Your task to perform on an android device: Do I have any events this weekend? Image 0: 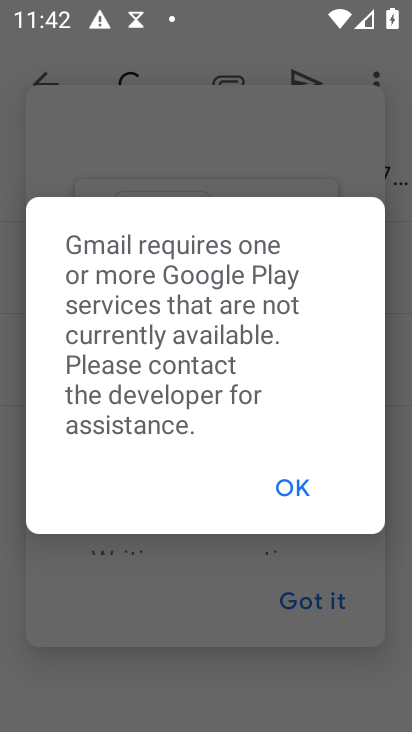
Step 0: press home button
Your task to perform on an android device: Do I have any events this weekend? Image 1: 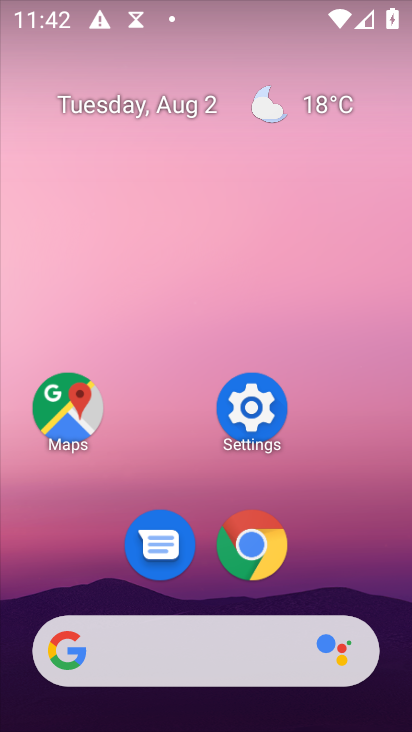
Step 1: drag from (195, 647) to (321, 167)
Your task to perform on an android device: Do I have any events this weekend? Image 2: 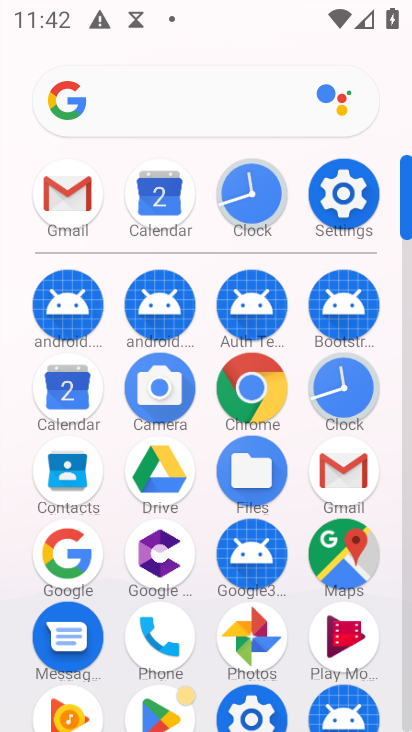
Step 2: click (66, 401)
Your task to perform on an android device: Do I have any events this weekend? Image 3: 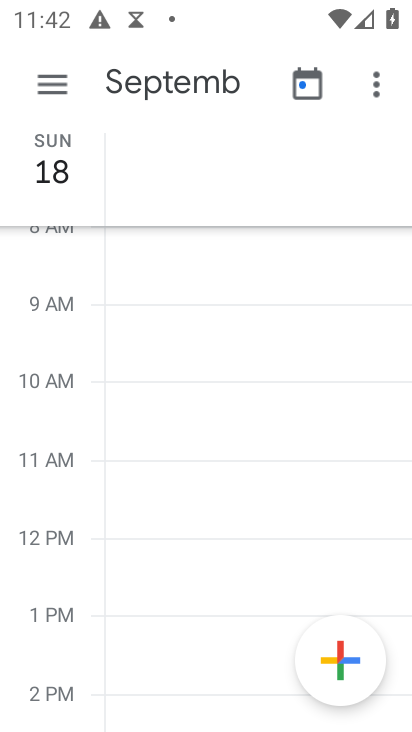
Step 3: click (160, 81)
Your task to perform on an android device: Do I have any events this weekend? Image 4: 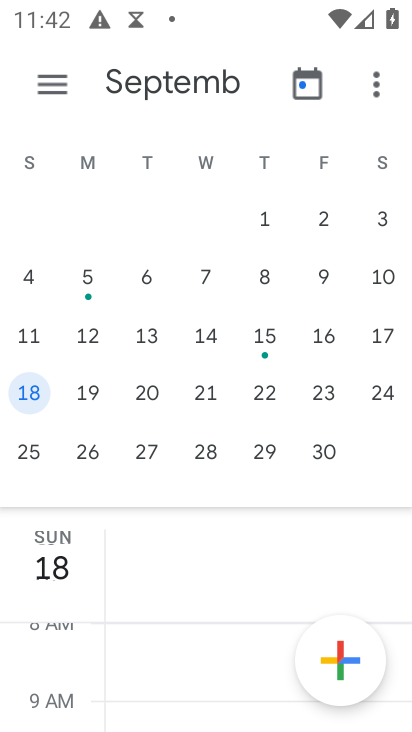
Step 4: drag from (36, 321) to (401, 343)
Your task to perform on an android device: Do I have any events this weekend? Image 5: 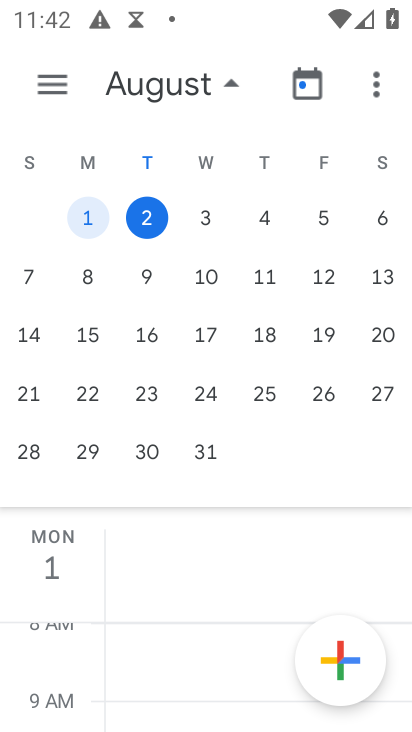
Step 5: click (382, 216)
Your task to perform on an android device: Do I have any events this weekend? Image 6: 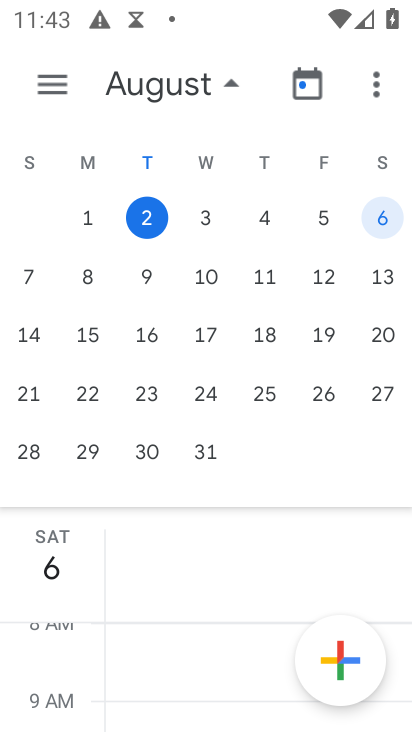
Step 6: click (45, 82)
Your task to perform on an android device: Do I have any events this weekend? Image 7: 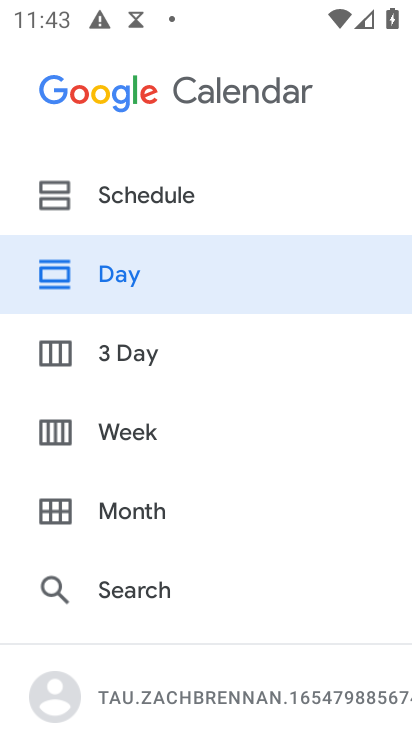
Step 7: click (132, 290)
Your task to perform on an android device: Do I have any events this weekend? Image 8: 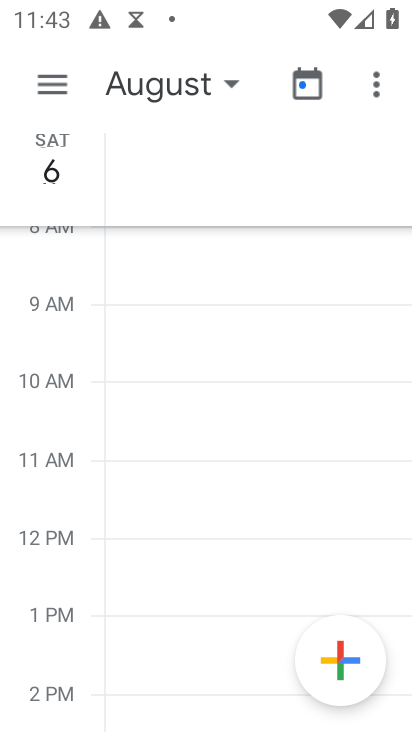
Step 8: click (52, 81)
Your task to perform on an android device: Do I have any events this weekend? Image 9: 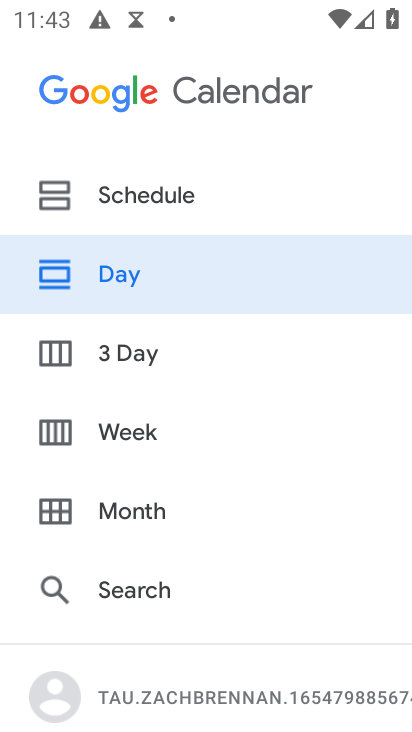
Step 9: click (135, 201)
Your task to perform on an android device: Do I have any events this weekend? Image 10: 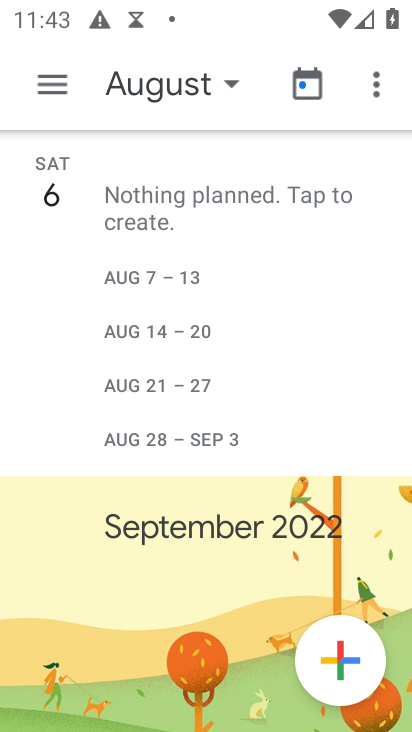
Step 10: task complete